Your task to perform on an android device: Search for Mexican restaurants on Maps Image 0: 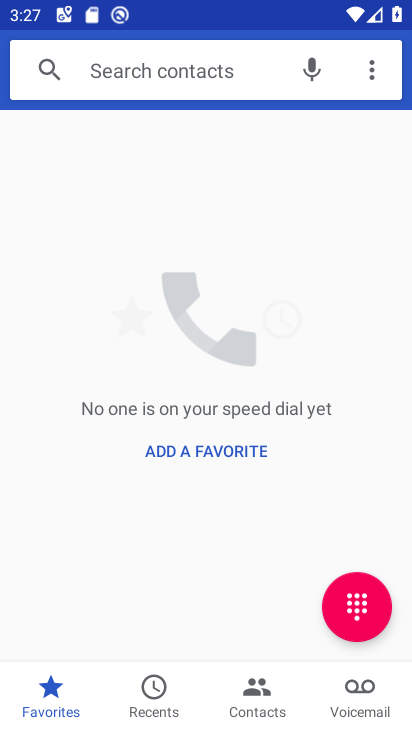
Step 0: press home button
Your task to perform on an android device: Search for Mexican restaurants on Maps Image 1: 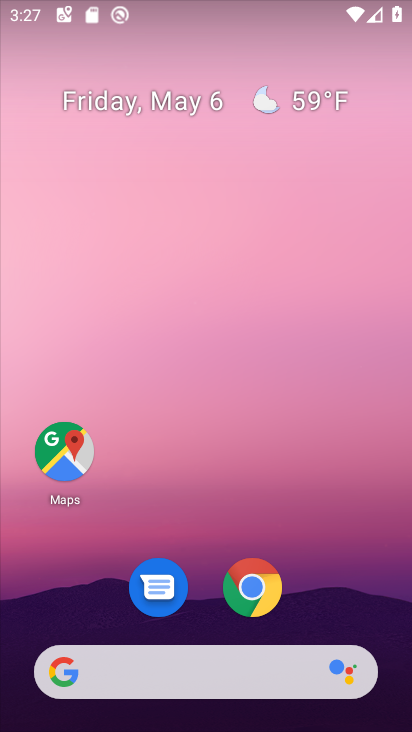
Step 1: click (58, 454)
Your task to perform on an android device: Search for Mexican restaurants on Maps Image 2: 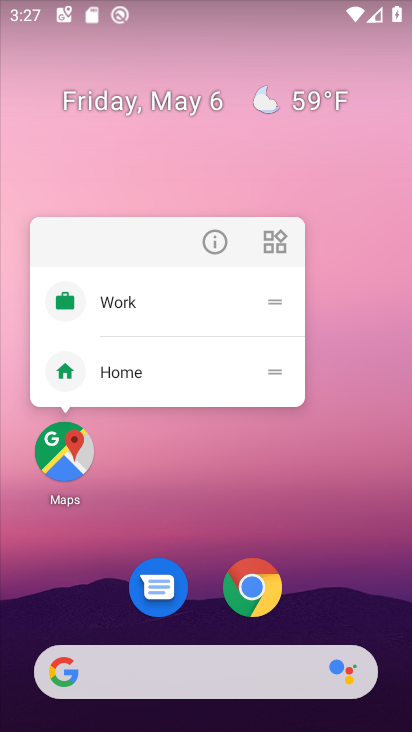
Step 2: click (58, 455)
Your task to perform on an android device: Search for Mexican restaurants on Maps Image 3: 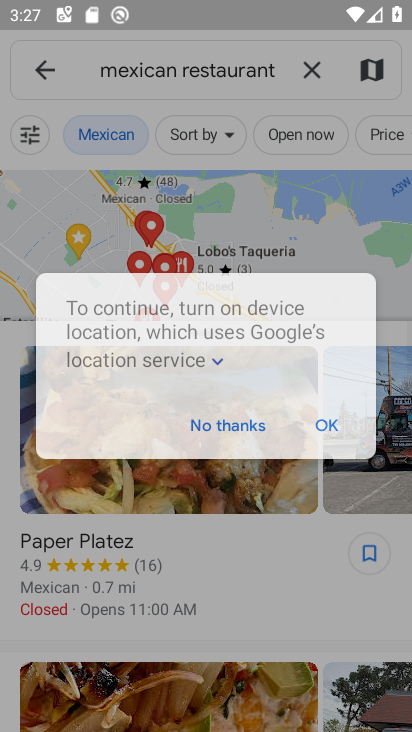
Step 3: task complete